Your task to perform on an android device: turn pop-ups on in chrome Image 0: 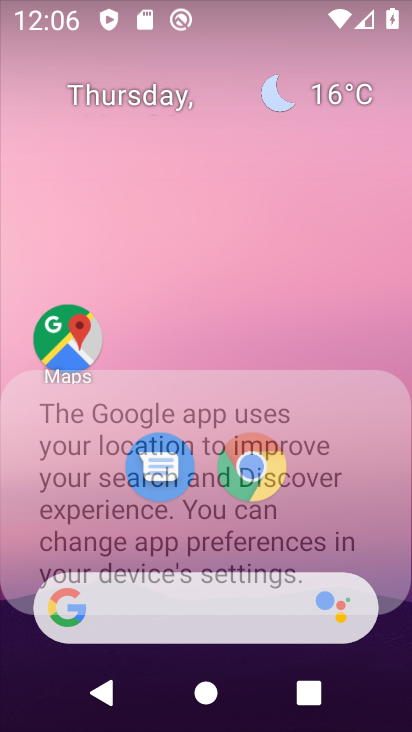
Step 0: click (251, 458)
Your task to perform on an android device: turn pop-ups on in chrome Image 1: 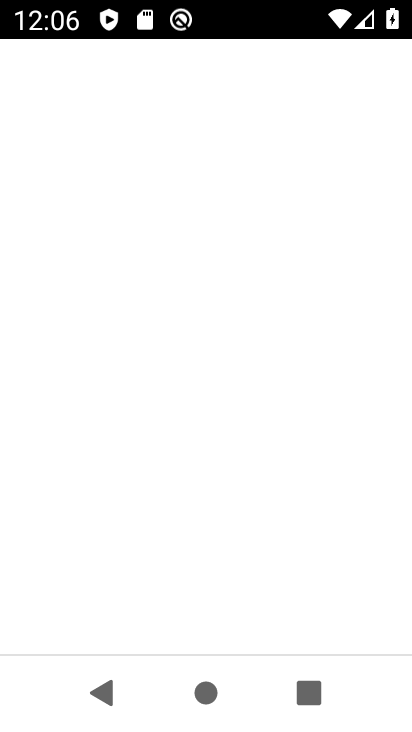
Step 1: click (252, 459)
Your task to perform on an android device: turn pop-ups on in chrome Image 2: 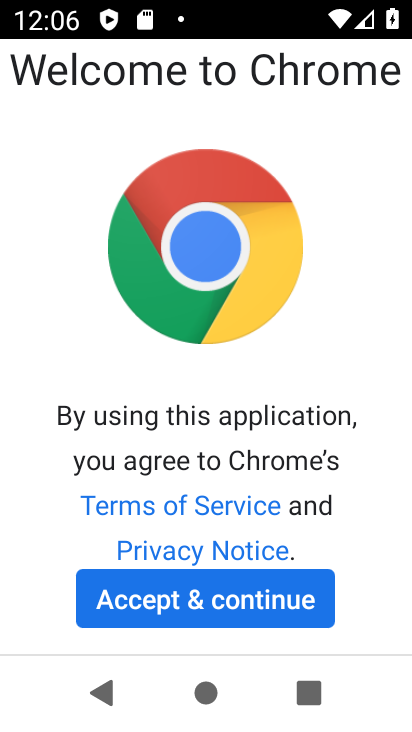
Step 2: click (190, 614)
Your task to perform on an android device: turn pop-ups on in chrome Image 3: 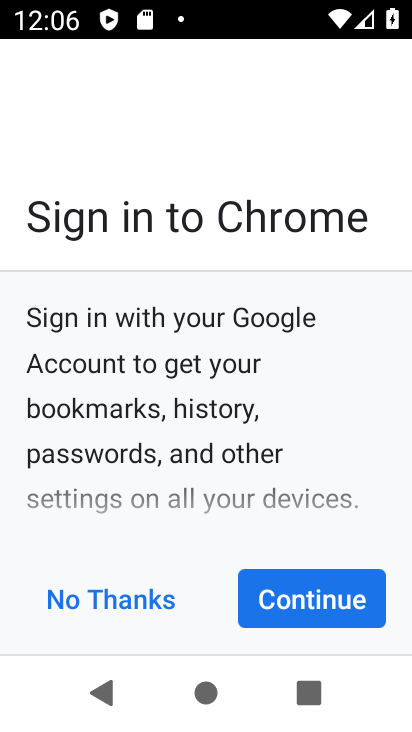
Step 3: click (320, 604)
Your task to perform on an android device: turn pop-ups on in chrome Image 4: 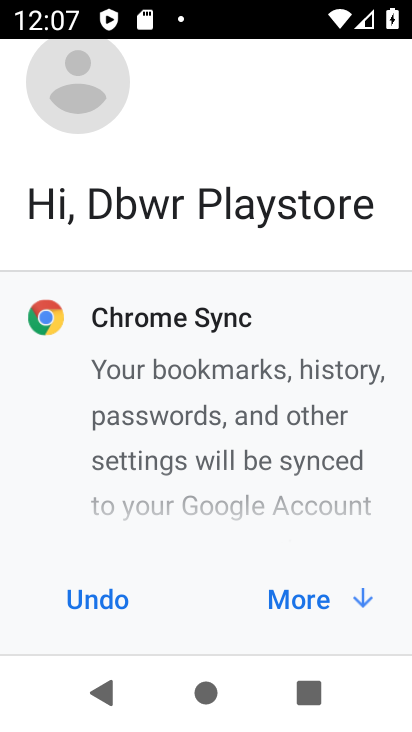
Step 4: click (320, 604)
Your task to perform on an android device: turn pop-ups on in chrome Image 5: 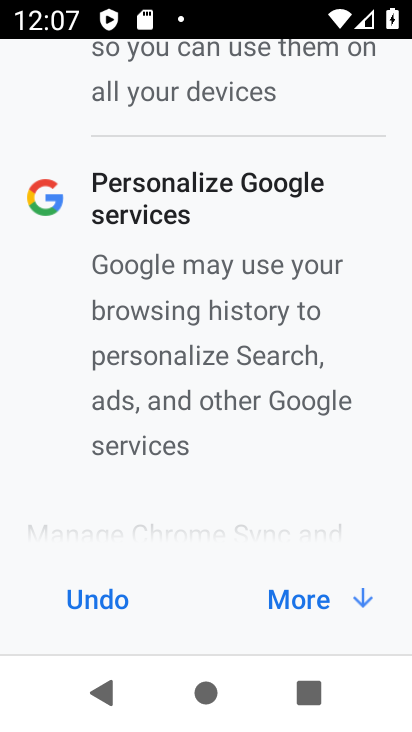
Step 5: click (319, 601)
Your task to perform on an android device: turn pop-ups on in chrome Image 6: 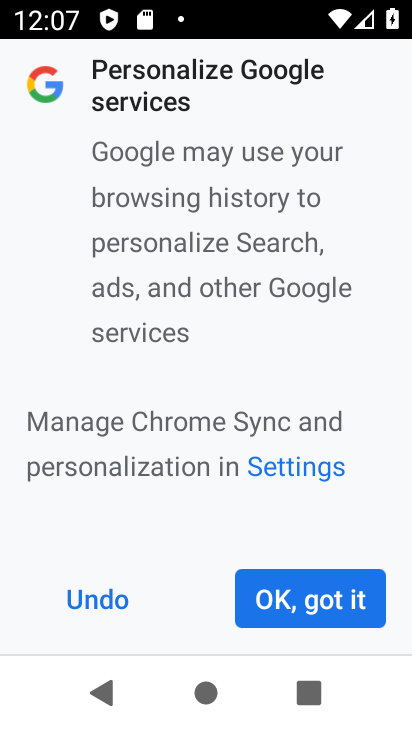
Step 6: click (319, 599)
Your task to perform on an android device: turn pop-ups on in chrome Image 7: 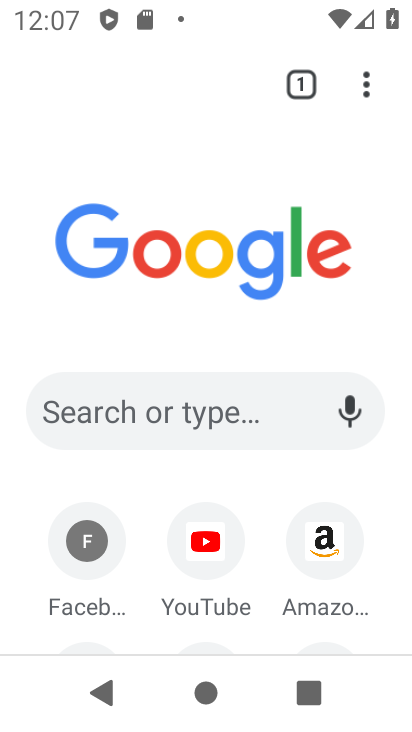
Step 7: click (371, 75)
Your task to perform on an android device: turn pop-ups on in chrome Image 8: 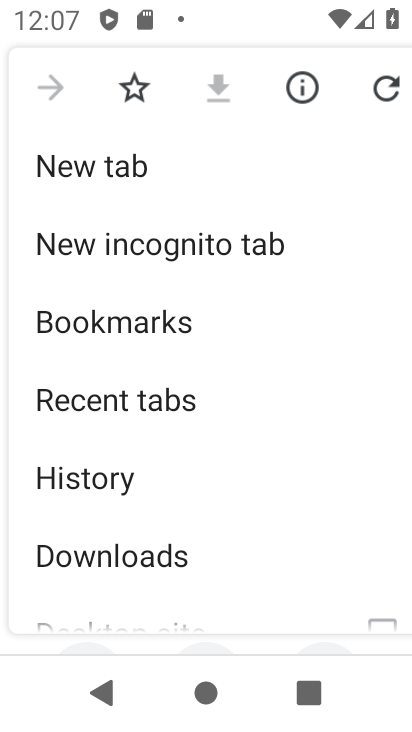
Step 8: drag from (151, 487) to (234, 157)
Your task to perform on an android device: turn pop-ups on in chrome Image 9: 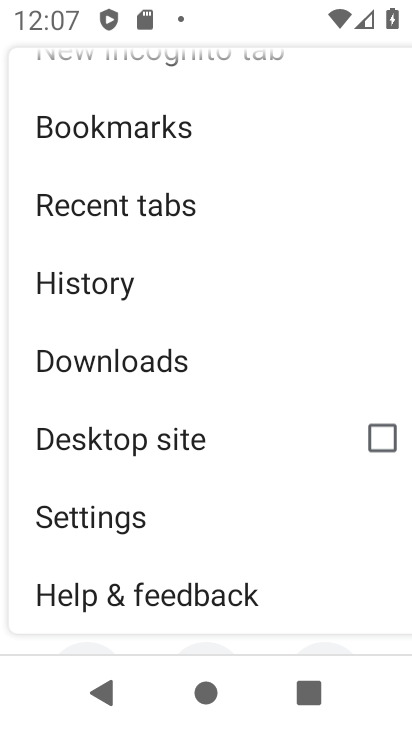
Step 9: click (126, 514)
Your task to perform on an android device: turn pop-ups on in chrome Image 10: 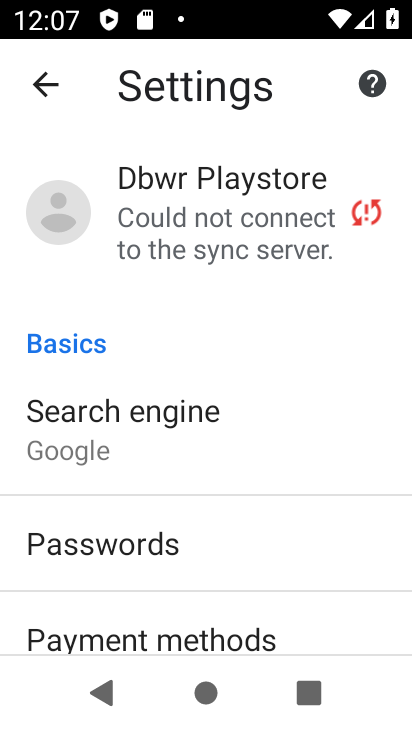
Step 10: drag from (155, 553) to (202, 274)
Your task to perform on an android device: turn pop-ups on in chrome Image 11: 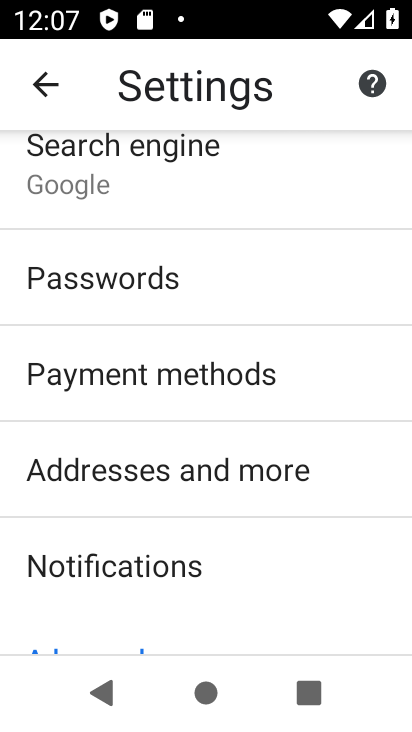
Step 11: drag from (217, 480) to (249, 230)
Your task to perform on an android device: turn pop-ups on in chrome Image 12: 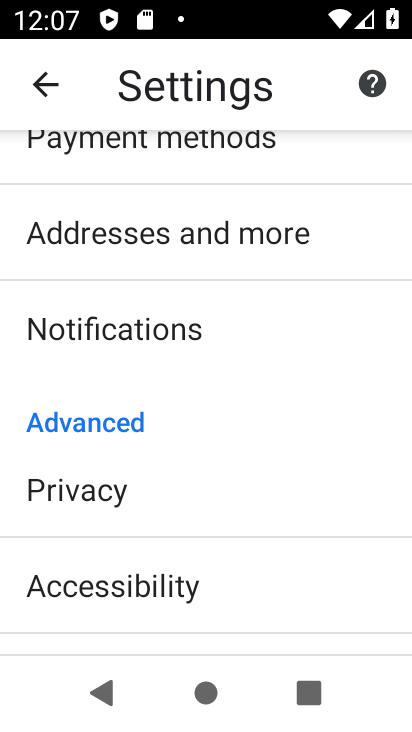
Step 12: drag from (213, 501) to (258, 213)
Your task to perform on an android device: turn pop-ups on in chrome Image 13: 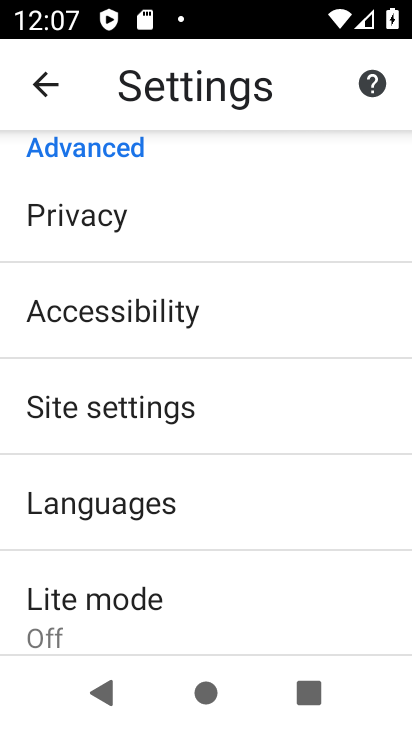
Step 13: click (132, 406)
Your task to perform on an android device: turn pop-ups on in chrome Image 14: 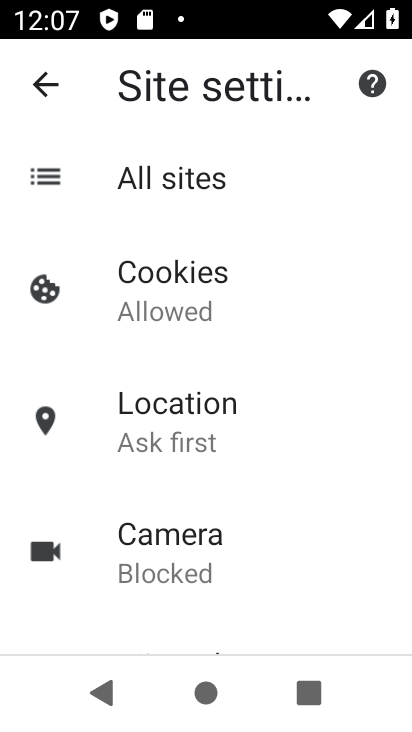
Step 14: drag from (184, 540) to (226, 309)
Your task to perform on an android device: turn pop-ups on in chrome Image 15: 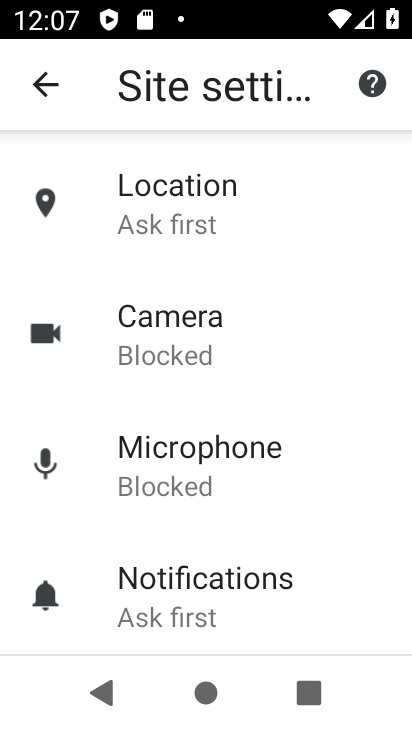
Step 15: drag from (231, 562) to (270, 269)
Your task to perform on an android device: turn pop-ups on in chrome Image 16: 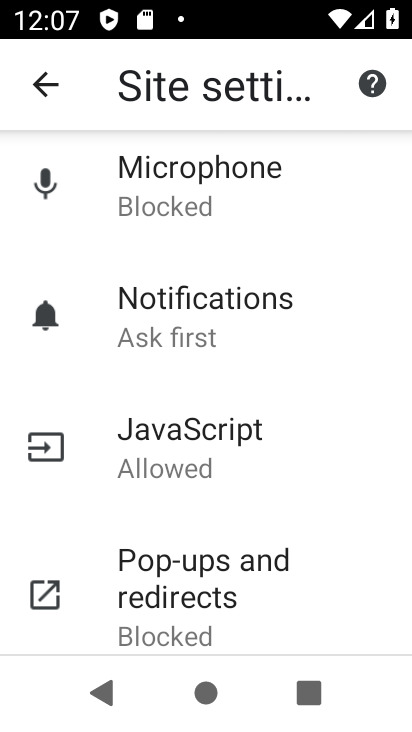
Step 16: click (221, 564)
Your task to perform on an android device: turn pop-ups on in chrome Image 17: 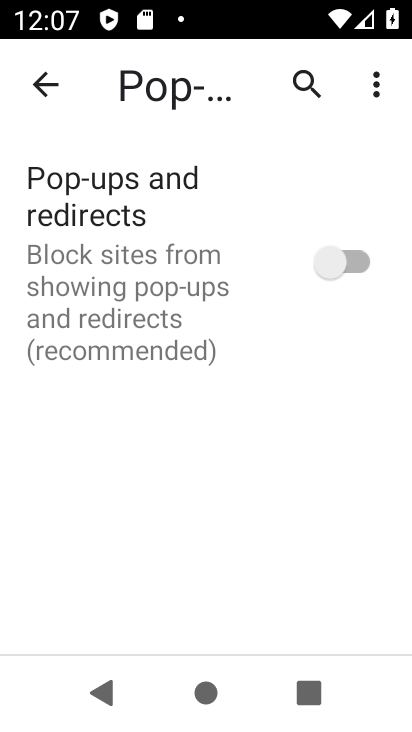
Step 17: click (358, 256)
Your task to perform on an android device: turn pop-ups on in chrome Image 18: 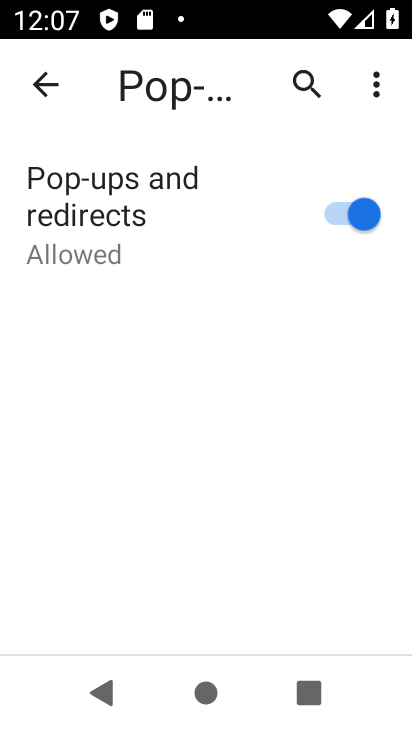
Step 18: task complete